Your task to perform on an android device: see tabs open on other devices in the chrome app Image 0: 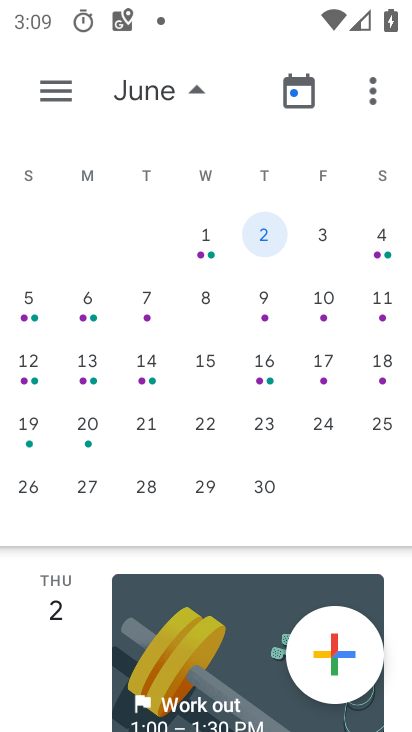
Step 0: press home button
Your task to perform on an android device: see tabs open on other devices in the chrome app Image 1: 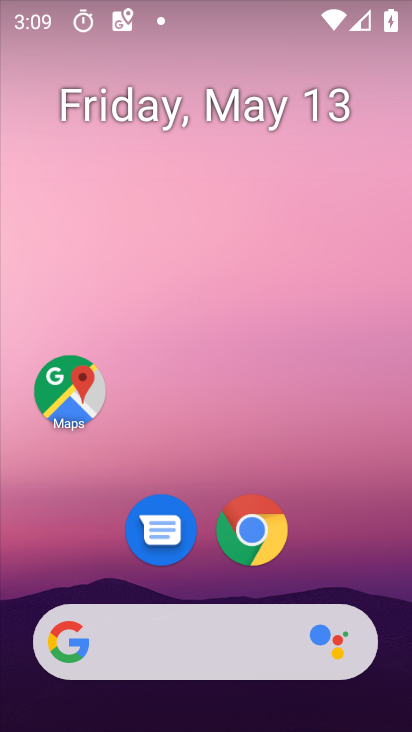
Step 1: drag from (320, 521) to (340, 80)
Your task to perform on an android device: see tabs open on other devices in the chrome app Image 2: 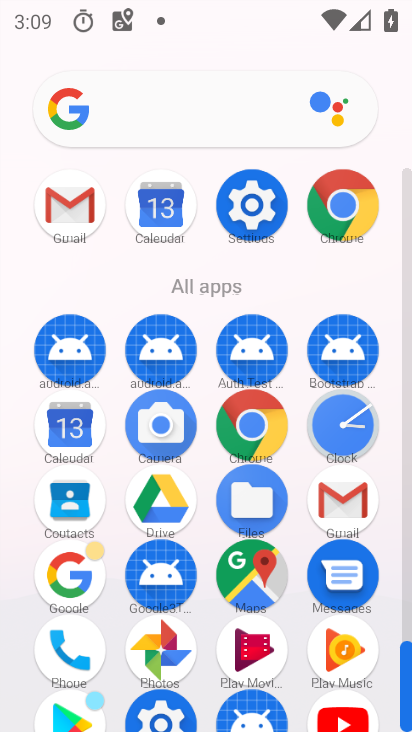
Step 2: click (248, 423)
Your task to perform on an android device: see tabs open on other devices in the chrome app Image 3: 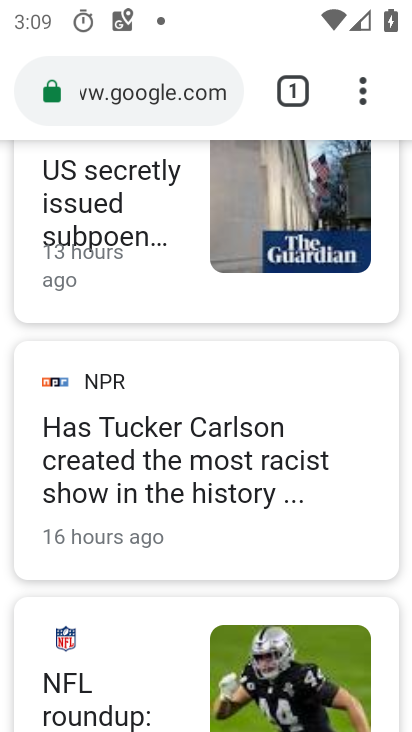
Step 3: task complete